Your task to perform on an android device: See recent photos Image 0: 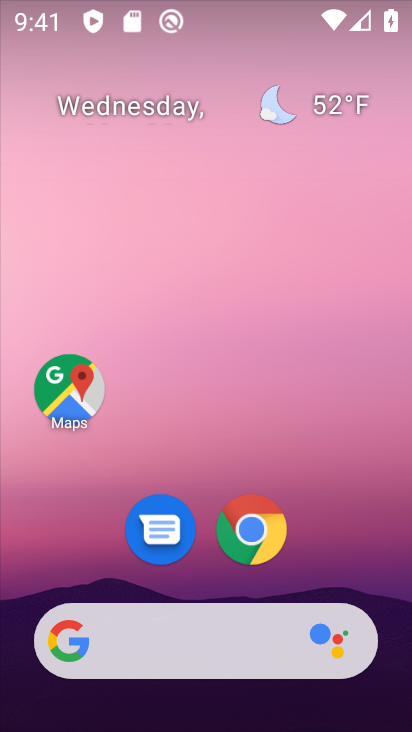
Step 0: drag from (54, 598) to (250, 98)
Your task to perform on an android device: See recent photos Image 1: 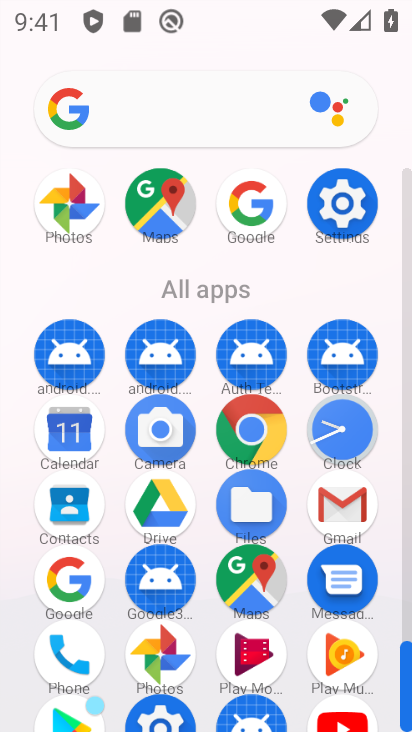
Step 1: drag from (147, 630) to (197, 446)
Your task to perform on an android device: See recent photos Image 2: 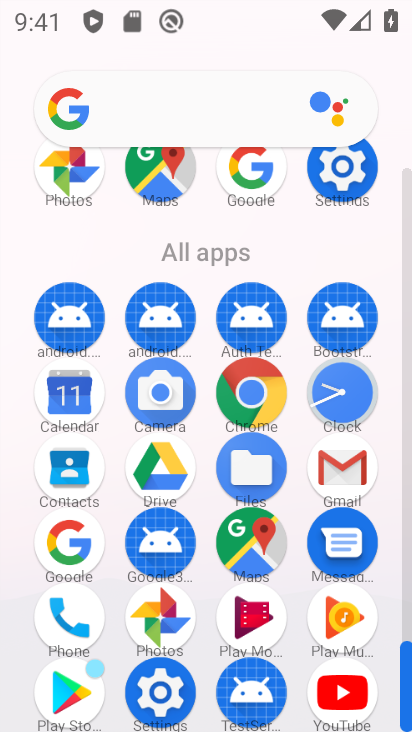
Step 2: click (166, 609)
Your task to perform on an android device: See recent photos Image 3: 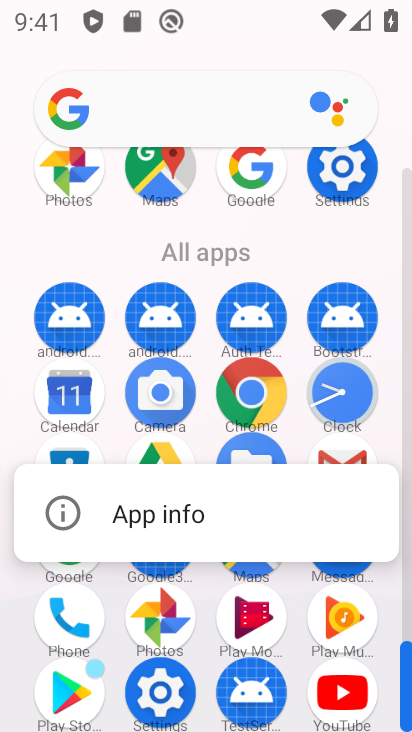
Step 3: click (162, 608)
Your task to perform on an android device: See recent photos Image 4: 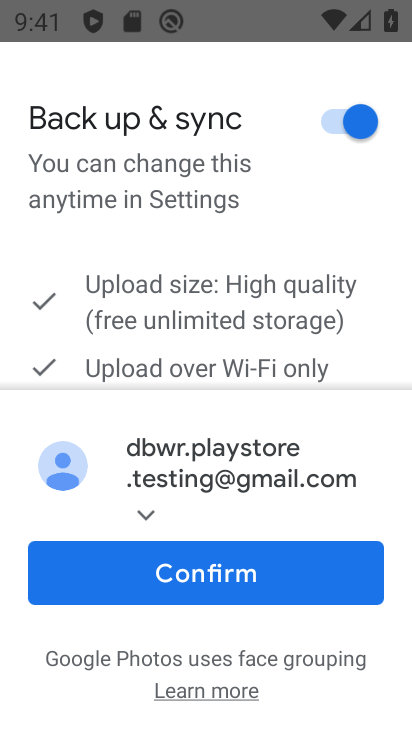
Step 4: click (255, 589)
Your task to perform on an android device: See recent photos Image 5: 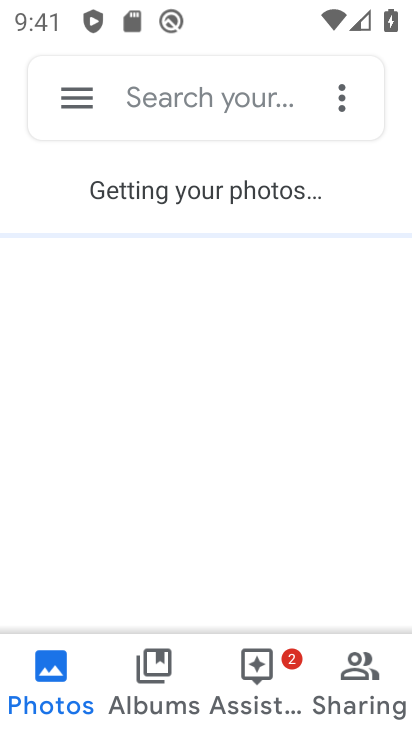
Step 5: task complete